Your task to perform on an android device: What's the weather going to be this weekend? Image 0: 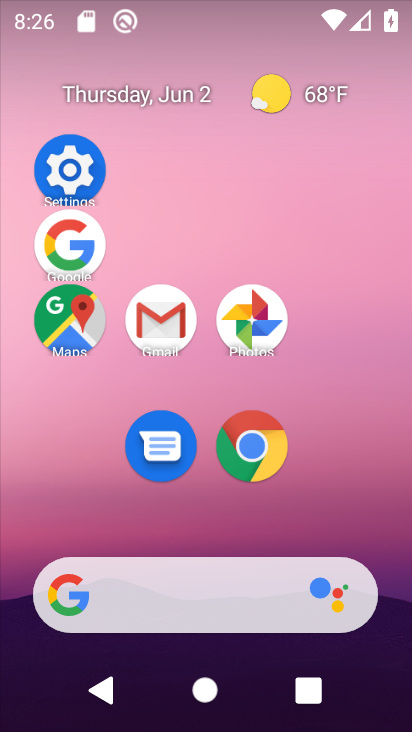
Step 0: click (82, 243)
Your task to perform on an android device: What's the weather going to be this weekend? Image 1: 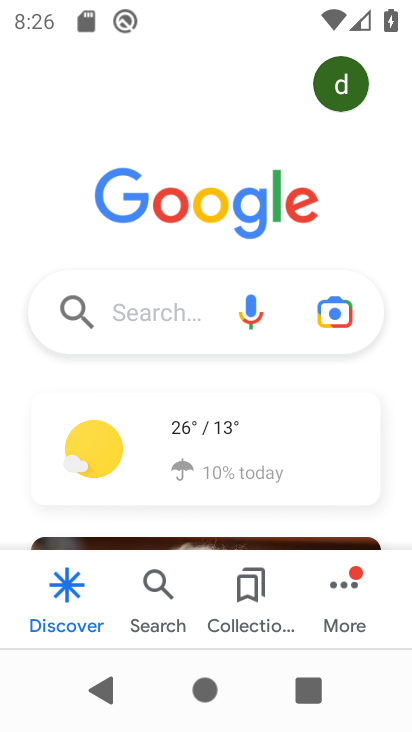
Step 1: click (173, 318)
Your task to perform on an android device: What's the weather going to be this weekend? Image 2: 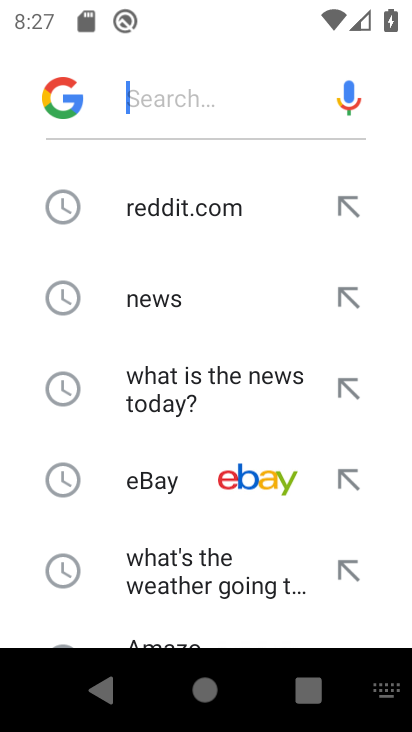
Step 2: drag from (198, 526) to (203, 186)
Your task to perform on an android device: What's the weather going to be this weekend? Image 3: 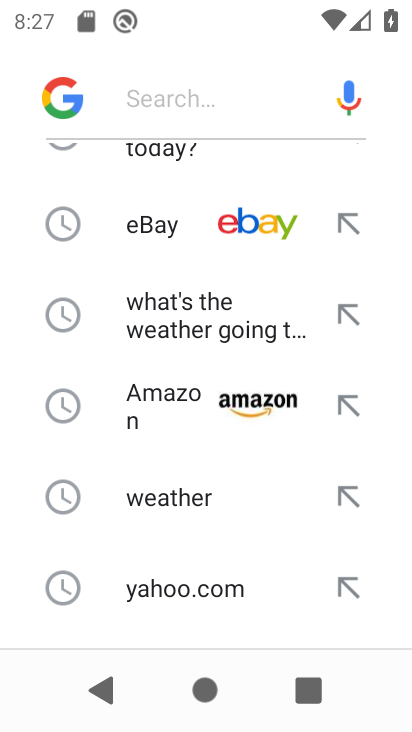
Step 3: click (194, 497)
Your task to perform on an android device: What's the weather going to be this weekend? Image 4: 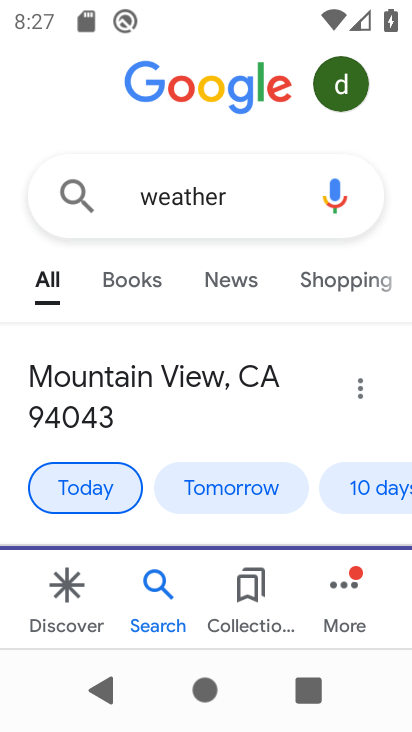
Step 4: click (360, 492)
Your task to perform on an android device: What's the weather going to be this weekend? Image 5: 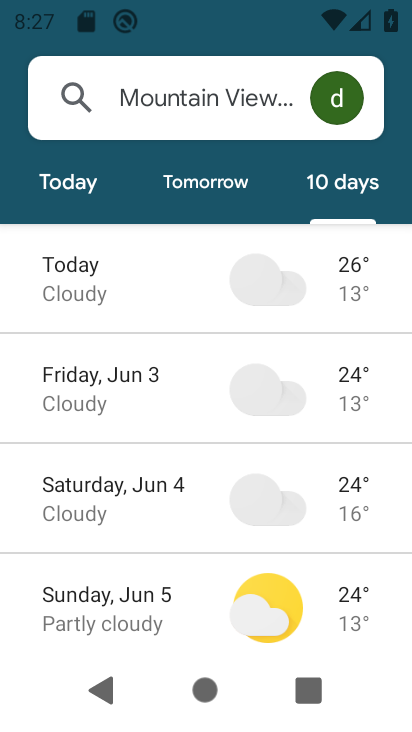
Step 5: click (132, 588)
Your task to perform on an android device: What's the weather going to be this weekend? Image 6: 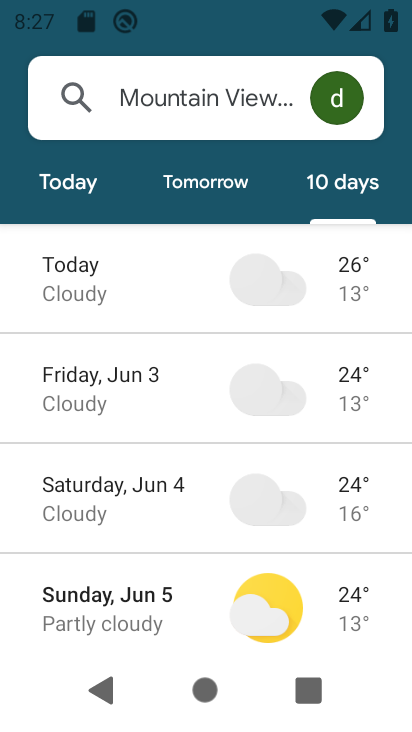
Step 6: task complete